Your task to perform on an android device: open chrome privacy settings Image 0: 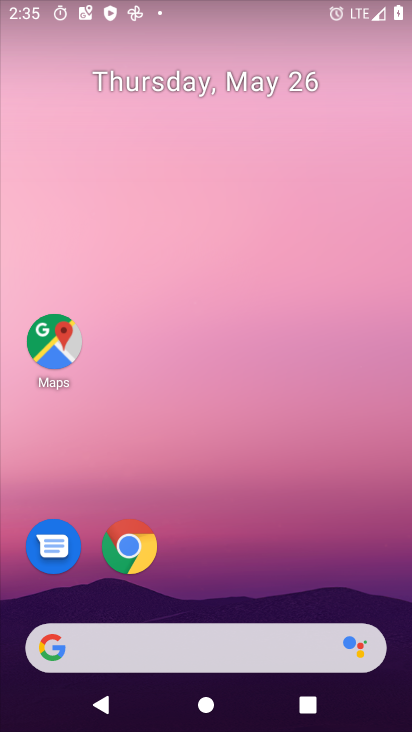
Step 0: click (132, 545)
Your task to perform on an android device: open chrome privacy settings Image 1: 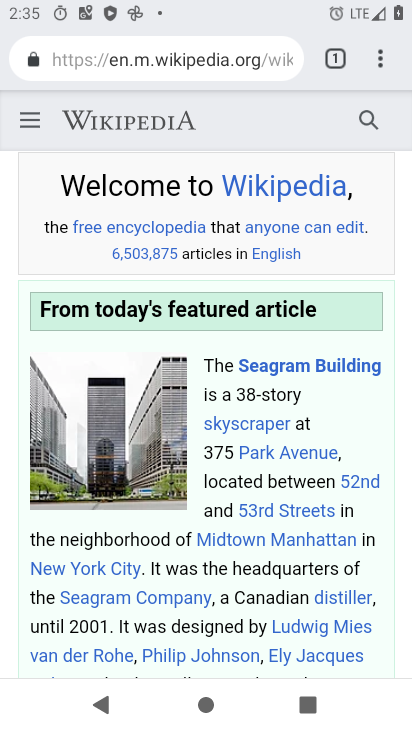
Step 1: click (376, 57)
Your task to perform on an android device: open chrome privacy settings Image 2: 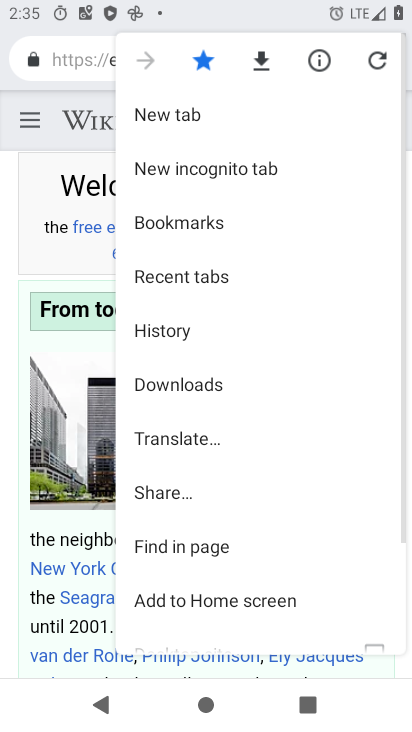
Step 2: drag from (186, 480) to (223, 95)
Your task to perform on an android device: open chrome privacy settings Image 3: 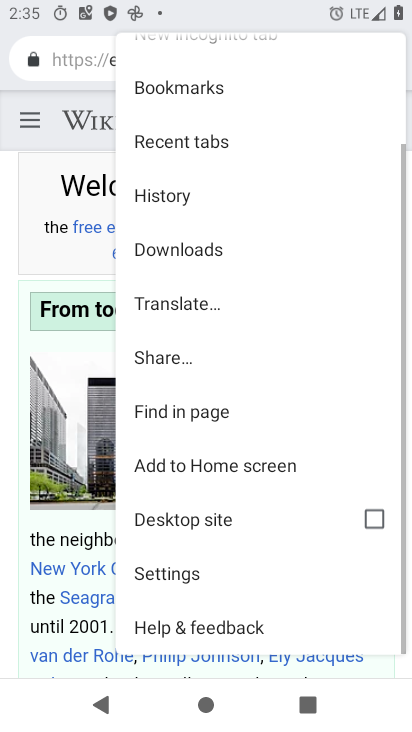
Step 3: click (187, 577)
Your task to perform on an android device: open chrome privacy settings Image 4: 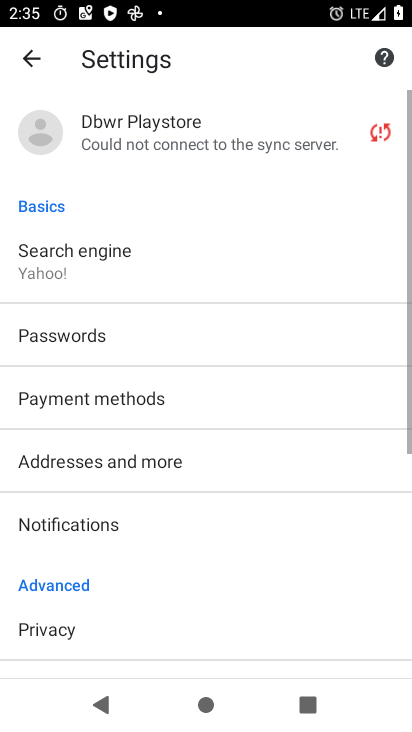
Step 4: drag from (244, 573) to (267, 216)
Your task to perform on an android device: open chrome privacy settings Image 5: 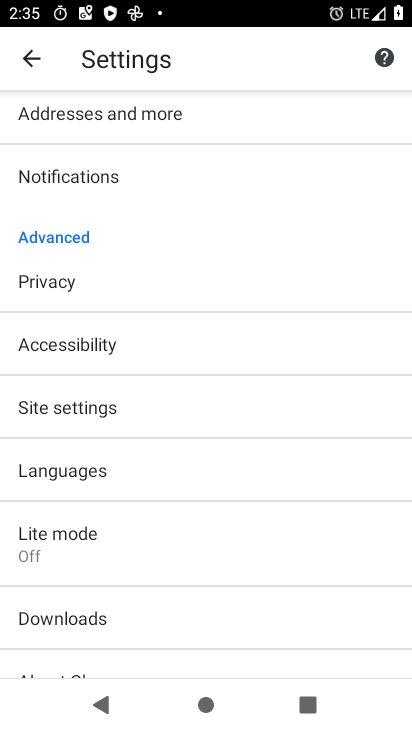
Step 5: click (83, 282)
Your task to perform on an android device: open chrome privacy settings Image 6: 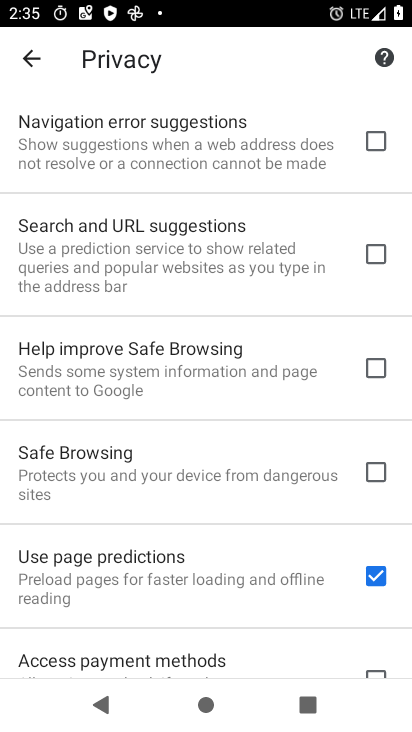
Step 6: task complete